Your task to perform on an android device: make emails show in primary in the gmail app Image 0: 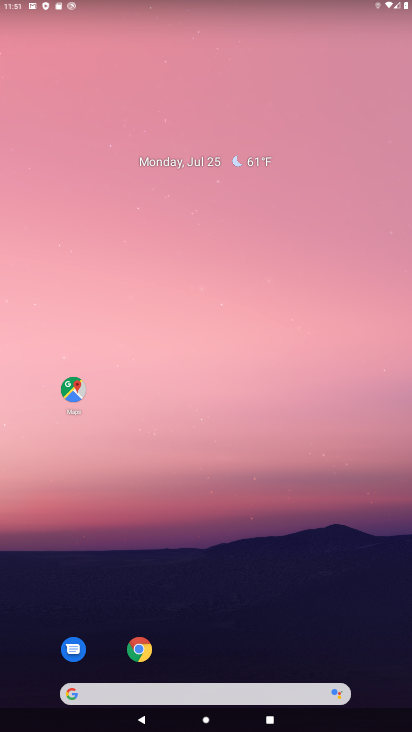
Step 0: drag from (376, 683) to (319, 110)
Your task to perform on an android device: make emails show in primary in the gmail app Image 1: 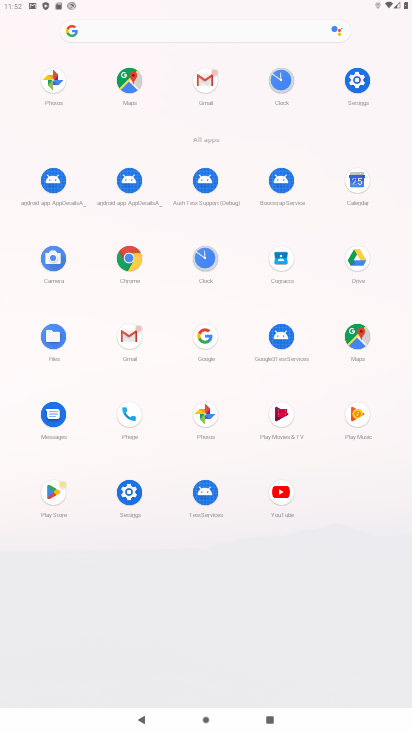
Step 1: click (136, 341)
Your task to perform on an android device: make emails show in primary in the gmail app Image 2: 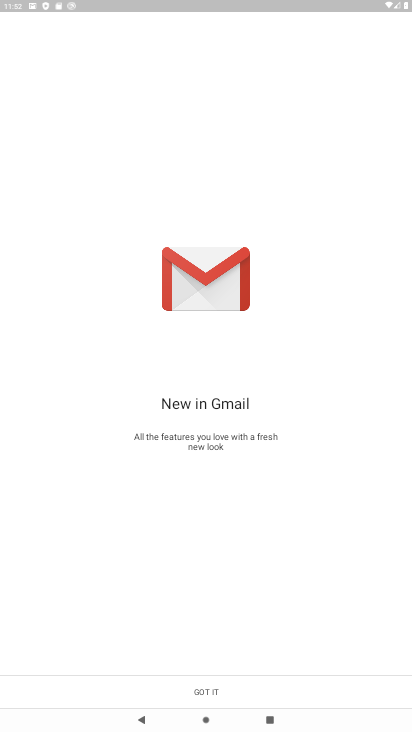
Step 2: click (206, 686)
Your task to perform on an android device: make emails show in primary in the gmail app Image 3: 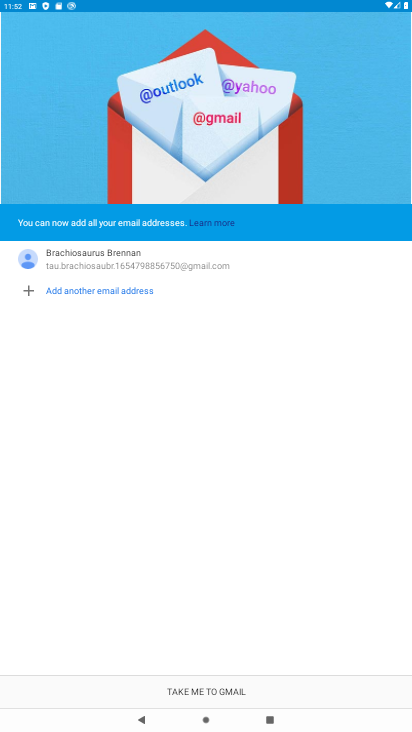
Step 3: click (206, 686)
Your task to perform on an android device: make emails show in primary in the gmail app Image 4: 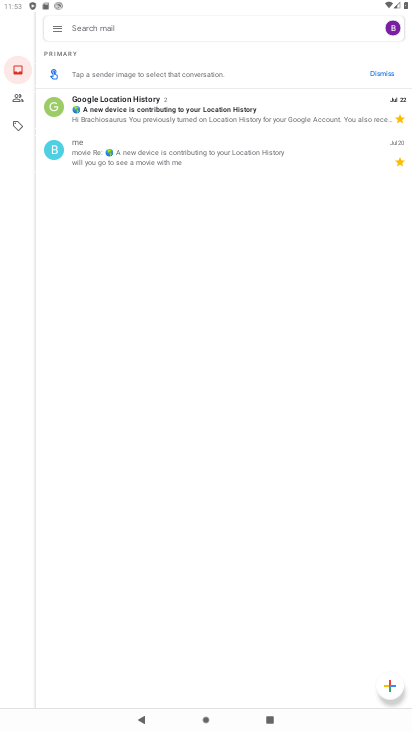
Step 4: click (57, 26)
Your task to perform on an android device: make emails show in primary in the gmail app Image 5: 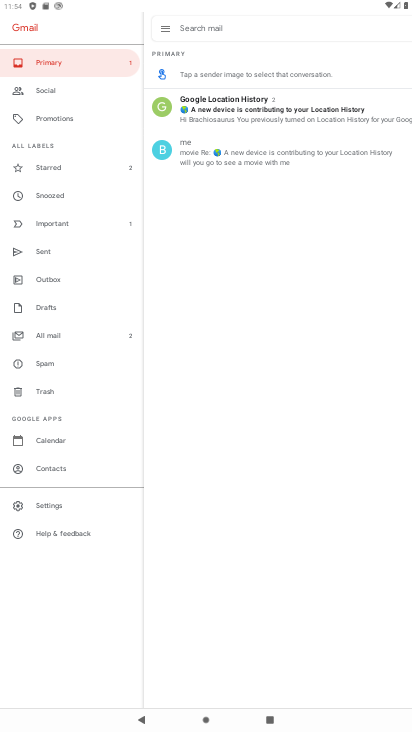
Step 5: task complete